Your task to perform on an android device: check out phone information Image 0: 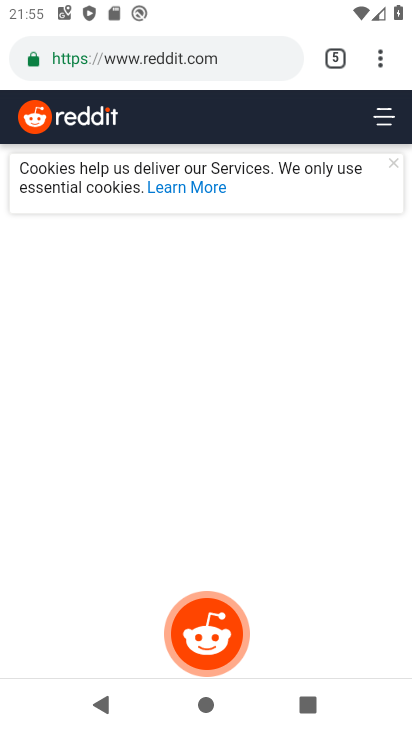
Step 0: press home button
Your task to perform on an android device: check out phone information Image 1: 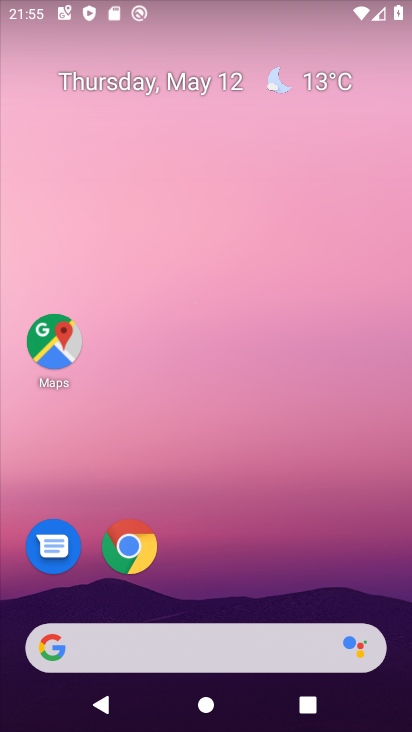
Step 1: drag from (279, 547) to (314, 146)
Your task to perform on an android device: check out phone information Image 2: 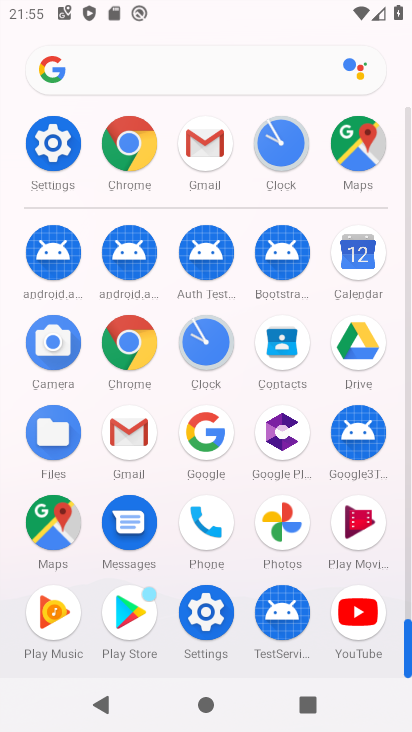
Step 2: click (200, 527)
Your task to perform on an android device: check out phone information Image 3: 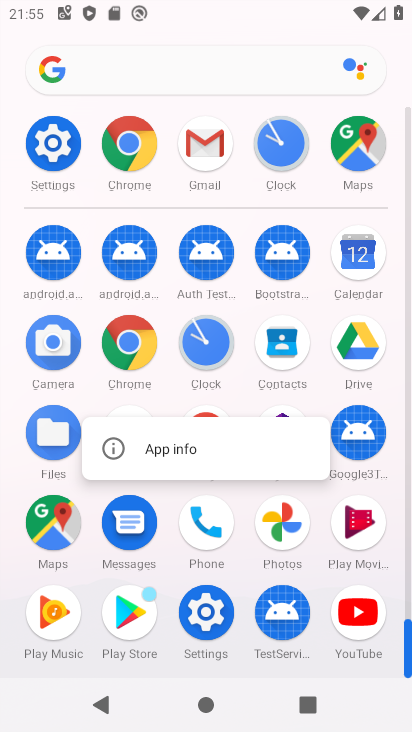
Step 3: click (200, 441)
Your task to perform on an android device: check out phone information Image 4: 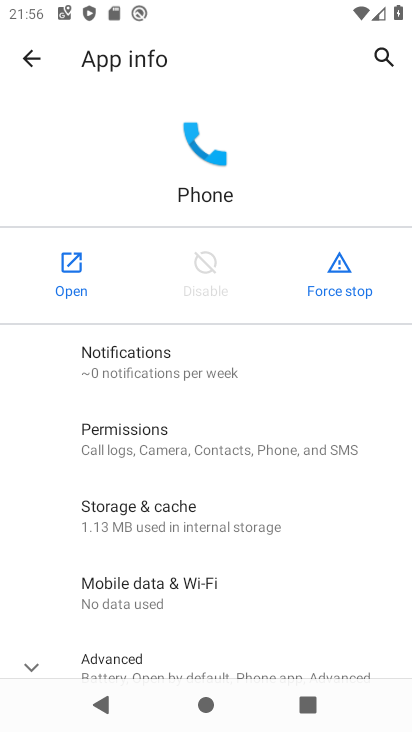
Step 4: task complete